Your task to perform on an android device: change keyboard looks Image 0: 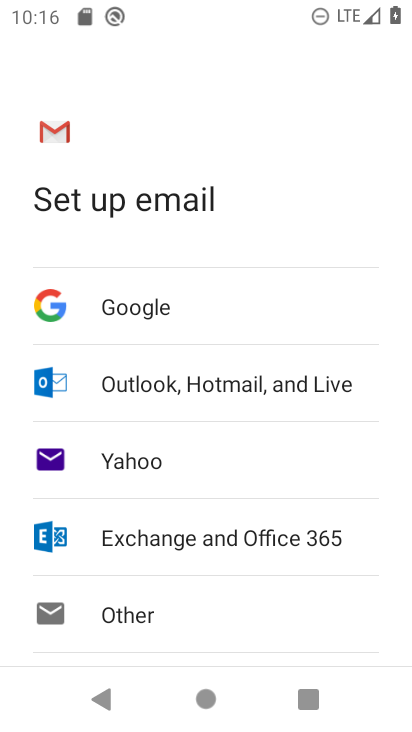
Step 0: press home button
Your task to perform on an android device: change keyboard looks Image 1: 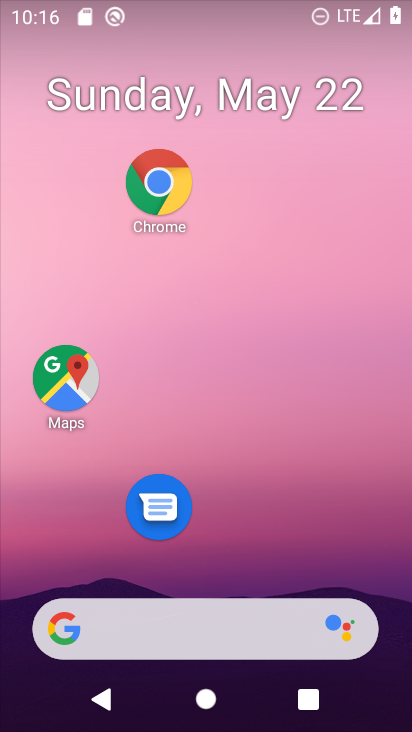
Step 1: drag from (250, 657) to (250, 130)
Your task to perform on an android device: change keyboard looks Image 2: 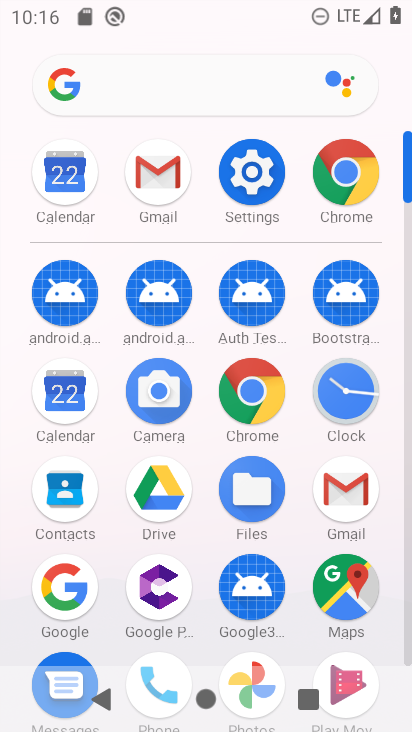
Step 2: click (260, 170)
Your task to perform on an android device: change keyboard looks Image 3: 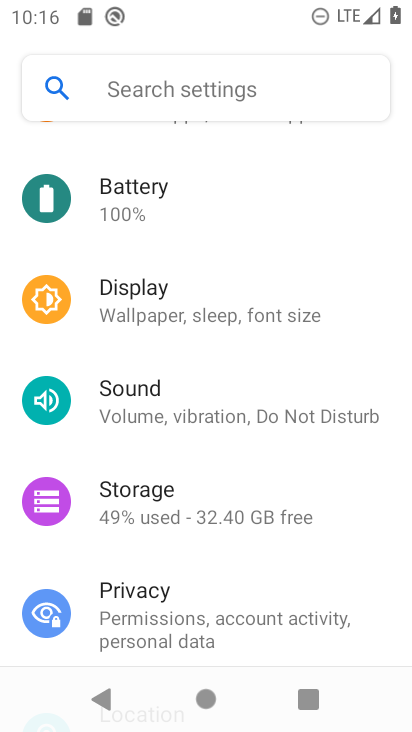
Step 3: drag from (257, 490) to (226, 44)
Your task to perform on an android device: change keyboard looks Image 4: 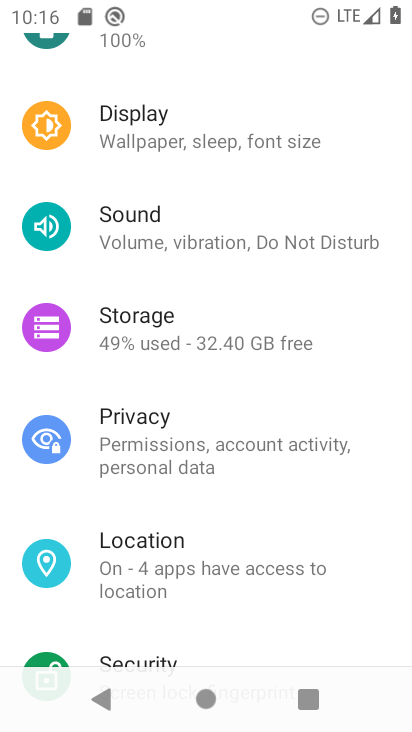
Step 4: drag from (216, 626) to (197, 107)
Your task to perform on an android device: change keyboard looks Image 5: 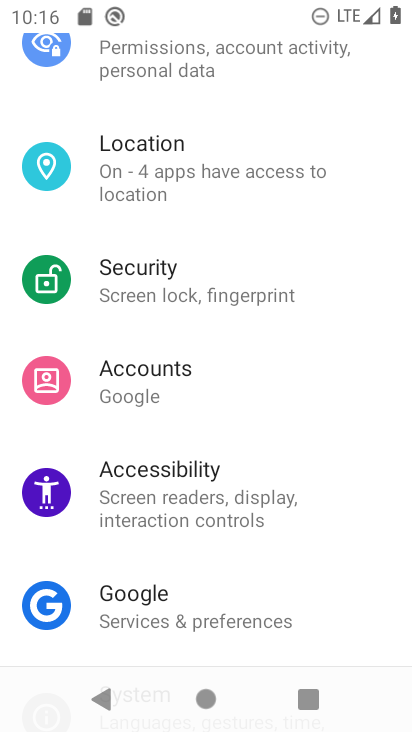
Step 5: drag from (161, 491) to (104, 13)
Your task to perform on an android device: change keyboard looks Image 6: 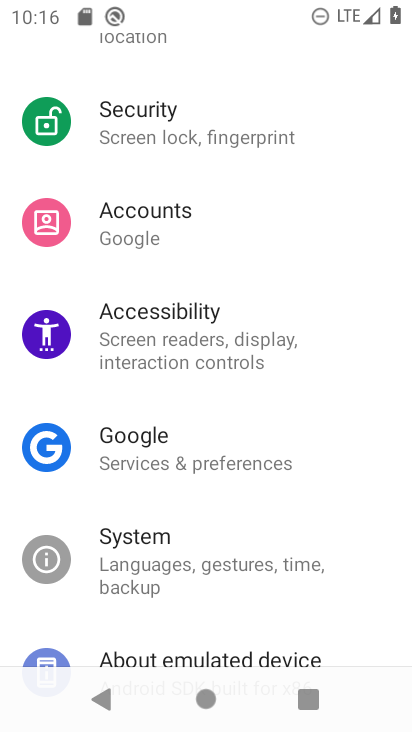
Step 6: click (191, 572)
Your task to perform on an android device: change keyboard looks Image 7: 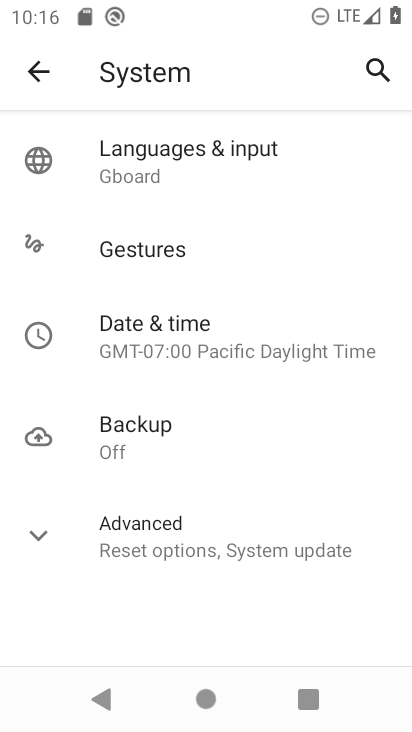
Step 7: click (193, 176)
Your task to perform on an android device: change keyboard looks Image 8: 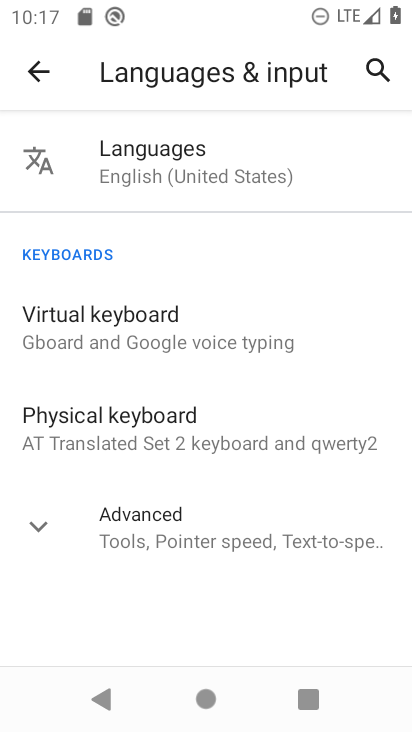
Step 8: click (132, 335)
Your task to perform on an android device: change keyboard looks Image 9: 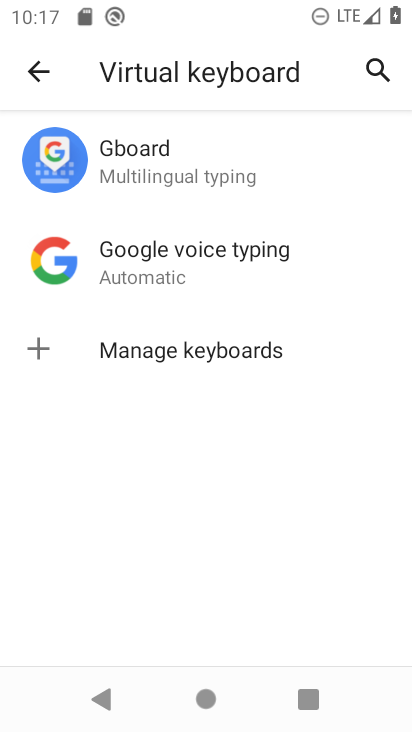
Step 9: click (214, 181)
Your task to perform on an android device: change keyboard looks Image 10: 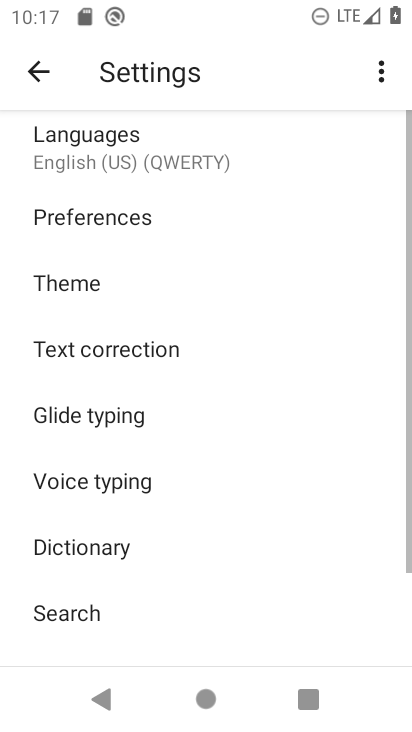
Step 10: click (97, 291)
Your task to perform on an android device: change keyboard looks Image 11: 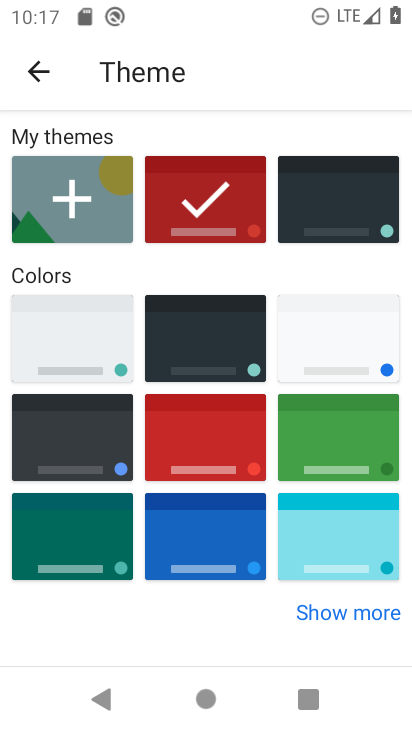
Step 11: click (177, 539)
Your task to perform on an android device: change keyboard looks Image 12: 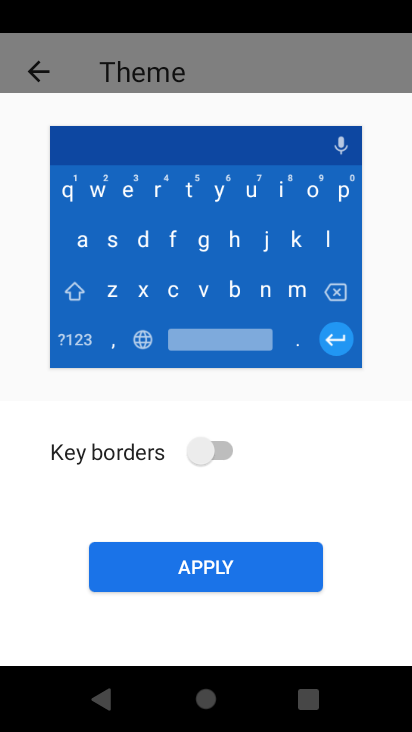
Step 12: click (241, 573)
Your task to perform on an android device: change keyboard looks Image 13: 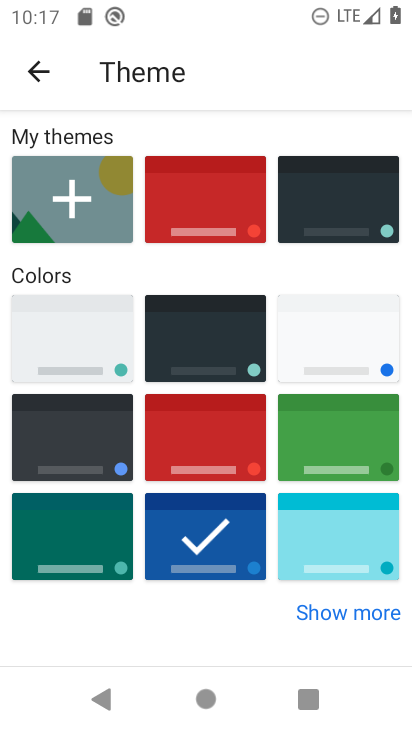
Step 13: task complete